Your task to perform on an android device: turn off improve location accuracy Image 0: 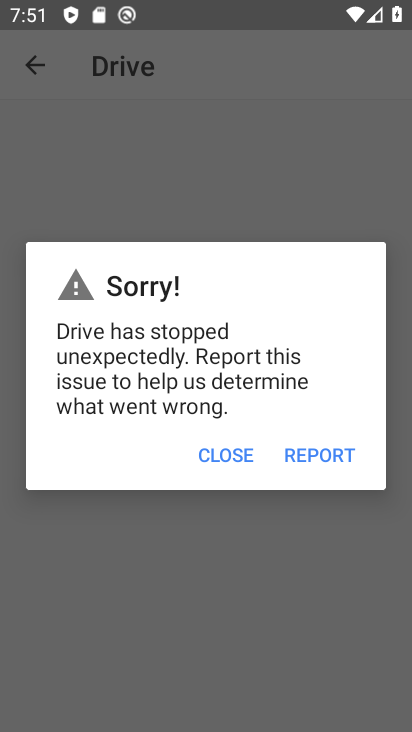
Step 0: press home button
Your task to perform on an android device: turn off improve location accuracy Image 1: 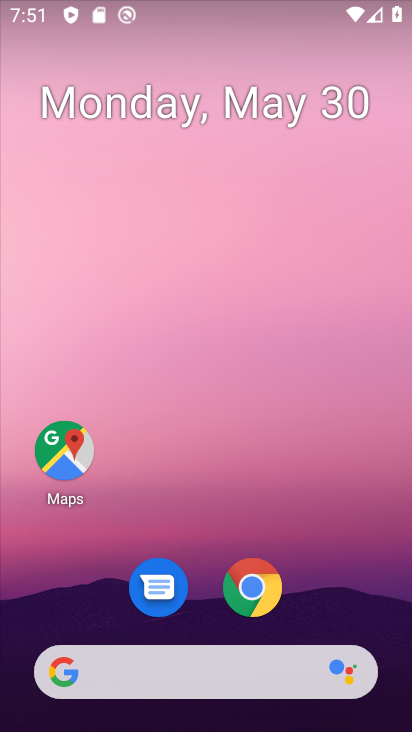
Step 1: drag from (199, 680) to (352, 113)
Your task to perform on an android device: turn off improve location accuracy Image 2: 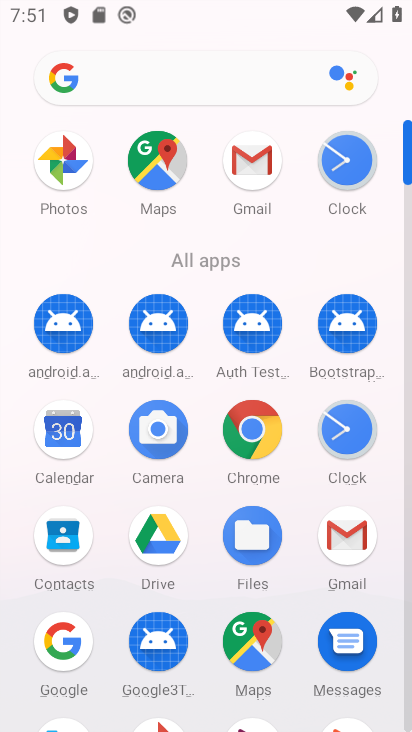
Step 2: drag from (209, 610) to (273, 74)
Your task to perform on an android device: turn off improve location accuracy Image 3: 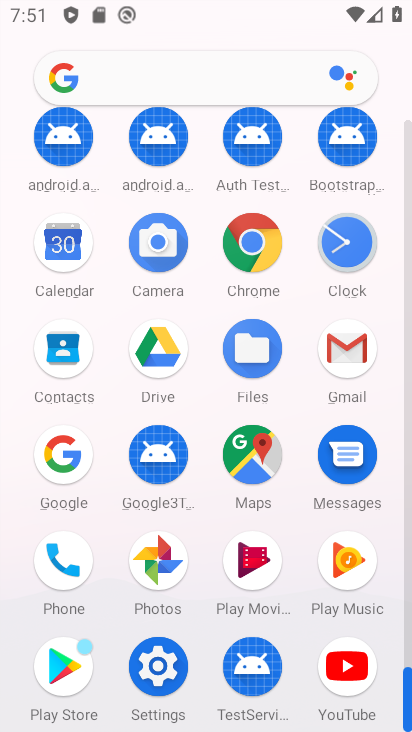
Step 3: click (157, 661)
Your task to perform on an android device: turn off improve location accuracy Image 4: 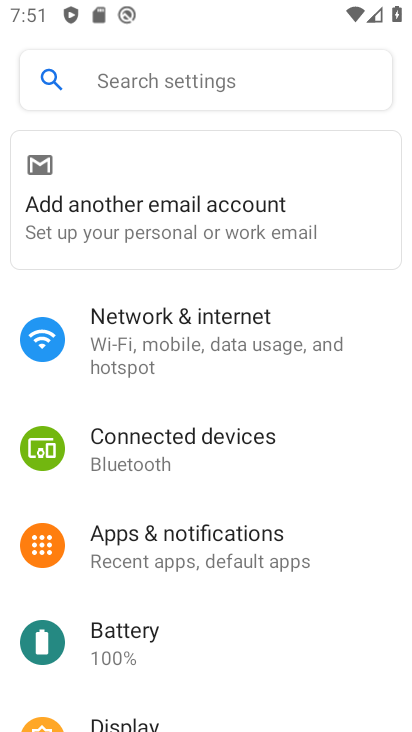
Step 4: drag from (232, 654) to (347, 242)
Your task to perform on an android device: turn off improve location accuracy Image 5: 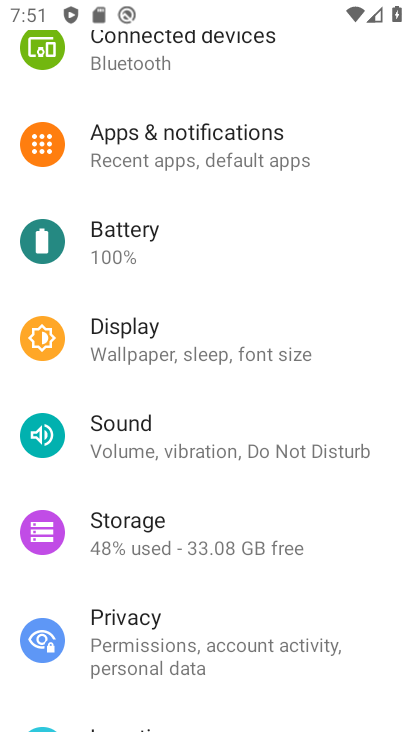
Step 5: drag from (273, 607) to (320, 0)
Your task to perform on an android device: turn off improve location accuracy Image 6: 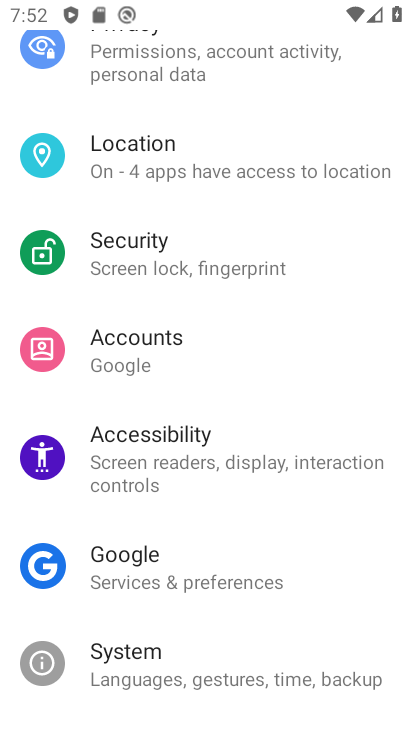
Step 6: drag from (296, 91) to (312, 240)
Your task to perform on an android device: turn off improve location accuracy Image 7: 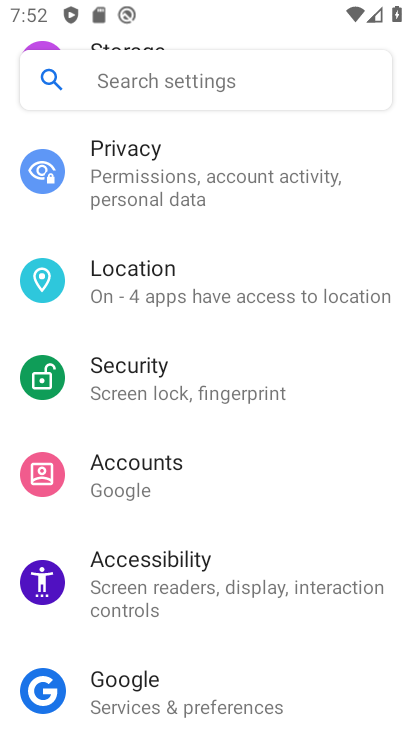
Step 7: click (169, 288)
Your task to perform on an android device: turn off improve location accuracy Image 8: 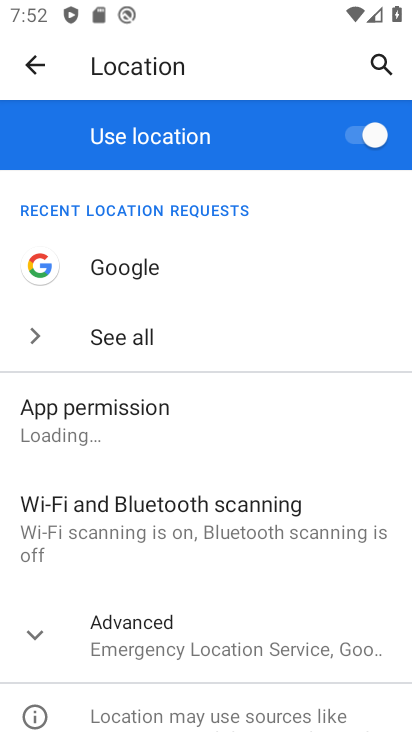
Step 8: drag from (259, 554) to (328, 113)
Your task to perform on an android device: turn off improve location accuracy Image 9: 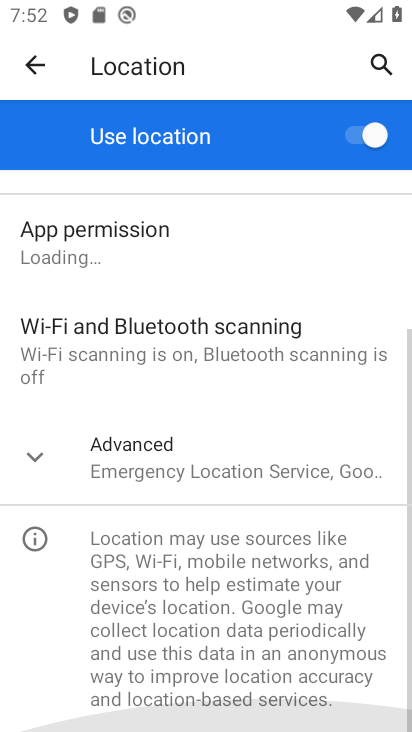
Step 9: click (153, 468)
Your task to perform on an android device: turn off improve location accuracy Image 10: 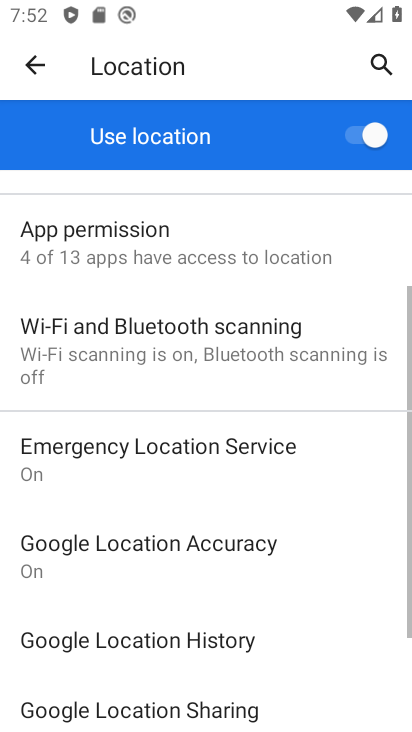
Step 10: click (146, 551)
Your task to perform on an android device: turn off improve location accuracy Image 11: 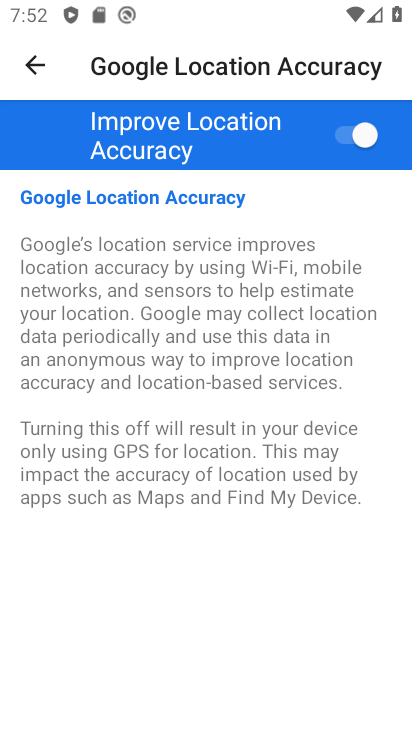
Step 11: click (342, 137)
Your task to perform on an android device: turn off improve location accuracy Image 12: 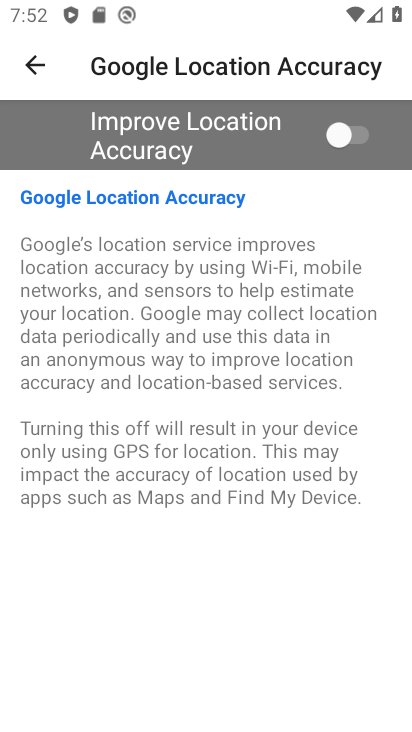
Step 12: task complete